Your task to perform on an android device: toggle notifications settings in the gmail app Image 0: 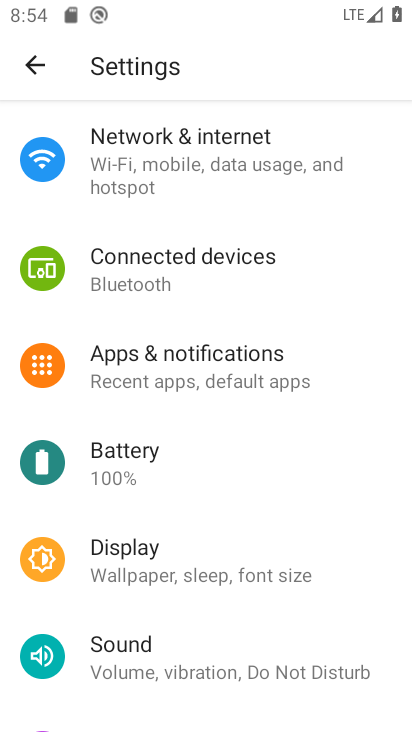
Step 0: click (354, 273)
Your task to perform on an android device: toggle notifications settings in the gmail app Image 1: 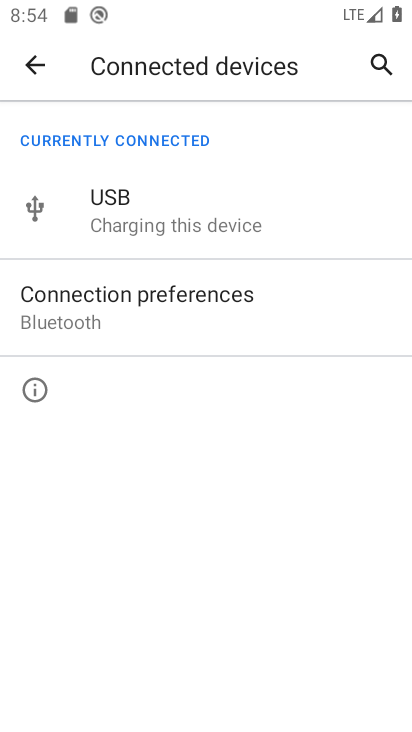
Step 1: click (35, 66)
Your task to perform on an android device: toggle notifications settings in the gmail app Image 2: 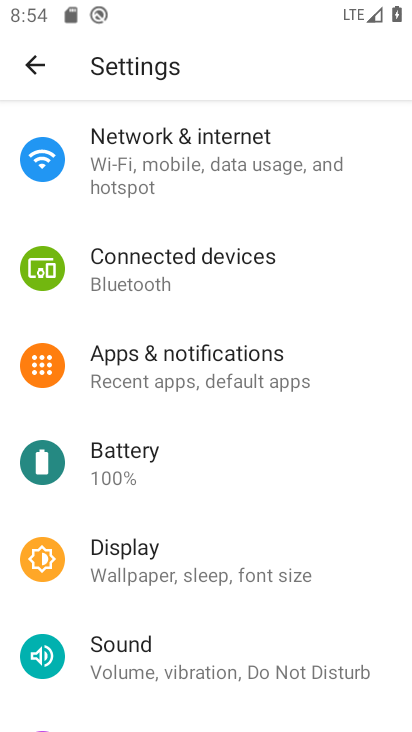
Step 2: press home button
Your task to perform on an android device: toggle notifications settings in the gmail app Image 3: 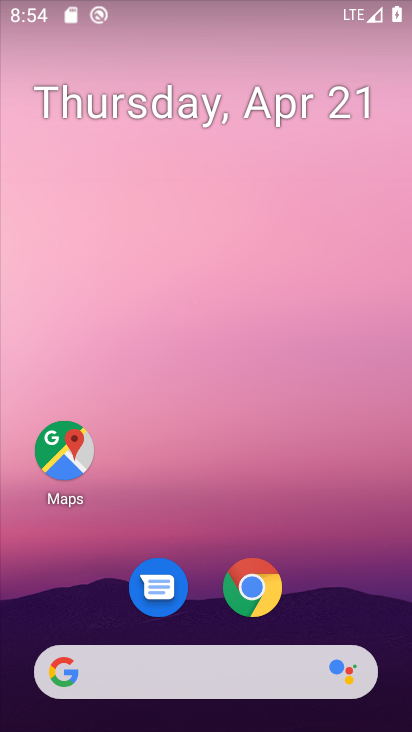
Step 3: drag from (347, 518) to (295, 63)
Your task to perform on an android device: toggle notifications settings in the gmail app Image 4: 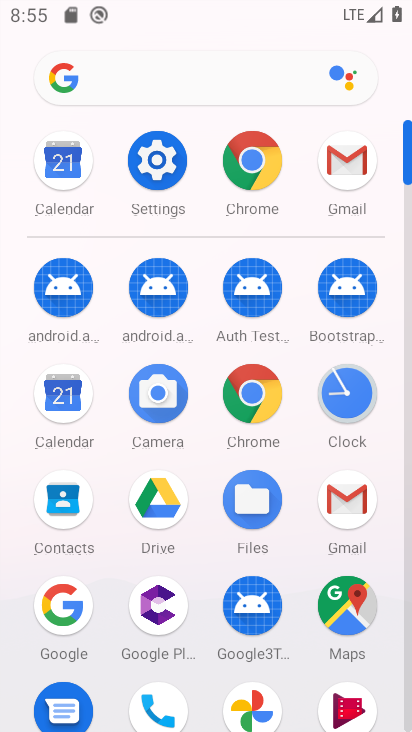
Step 4: click (338, 496)
Your task to perform on an android device: toggle notifications settings in the gmail app Image 5: 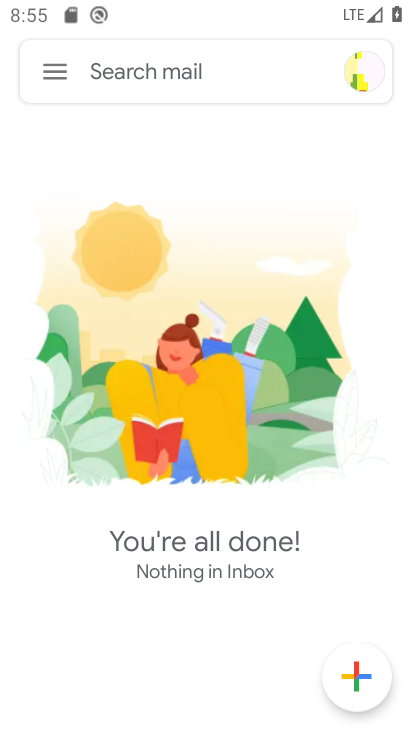
Step 5: click (55, 70)
Your task to perform on an android device: toggle notifications settings in the gmail app Image 6: 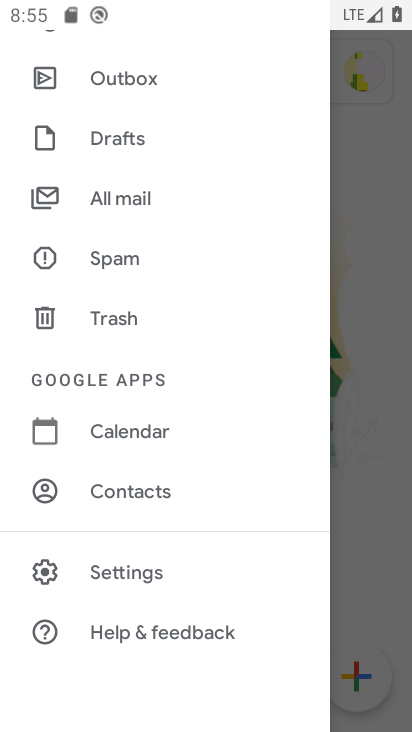
Step 6: click (110, 570)
Your task to perform on an android device: toggle notifications settings in the gmail app Image 7: 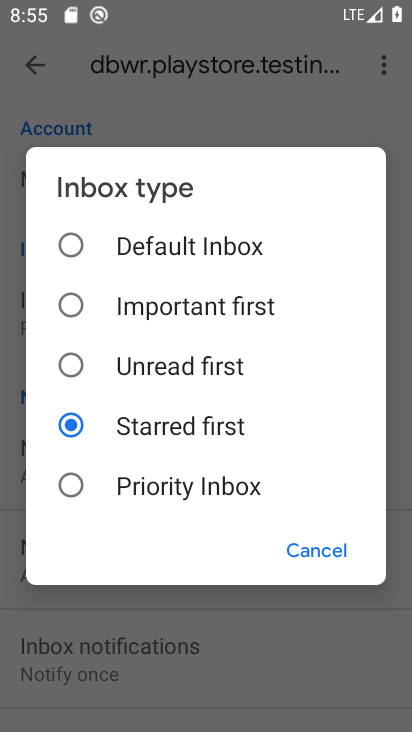
Step 7: press back button
Your task to perform on an android device: toggle notifications settings in the gmail app Image 8: 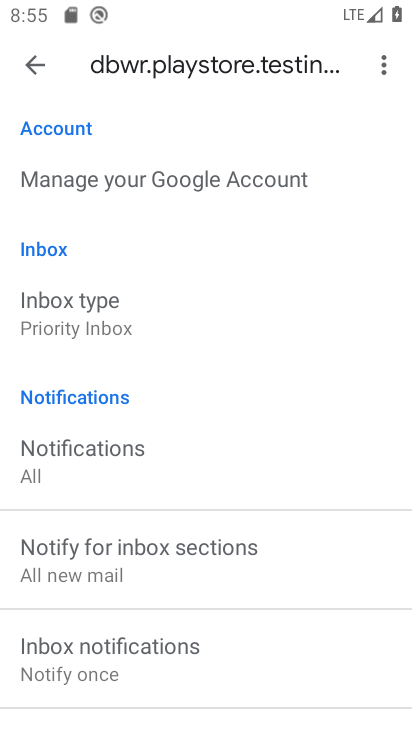
Step 8: click (26, 67)
Your task to perform on an android device: toggle notifications settings in the gmail app Image 9: 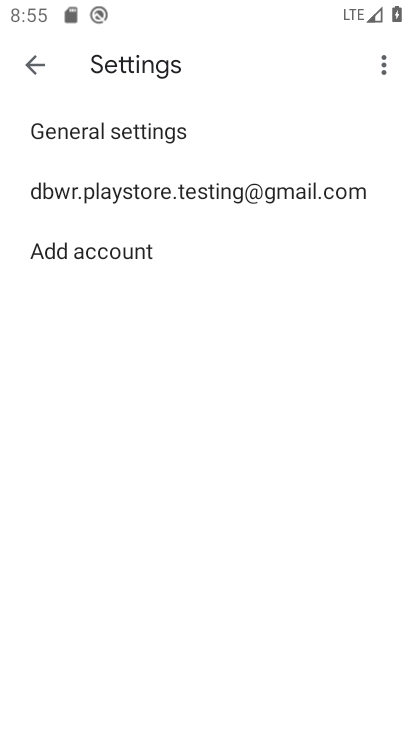
Step 9: click (88, 122)
Your task to perform on an android device: toggle notifications settings in the gmail app Image 10: 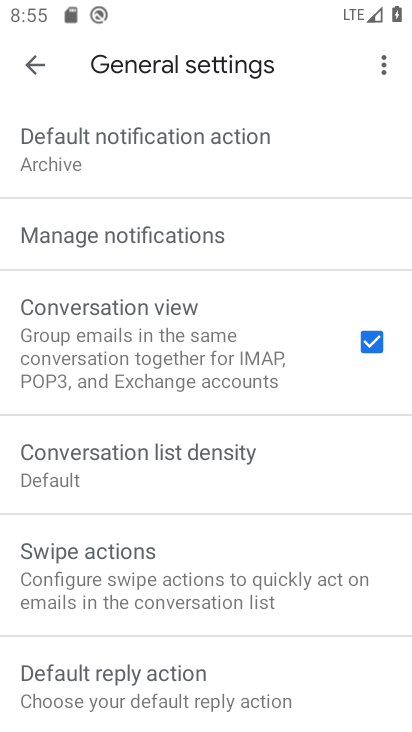
Step 10: click (104, 237)
Your task to perform on an android device: toggle notifications settings in the gmail app Image 11: 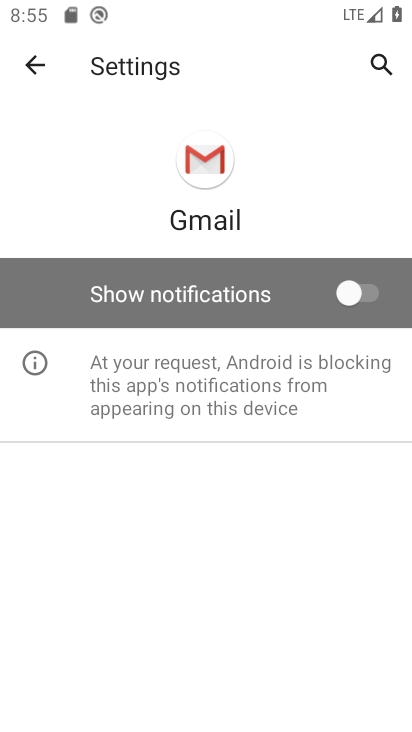
Step 11: click (370, 283)
Your task to perform on an android device: toggle notifications settings in the gmail app Image 12: 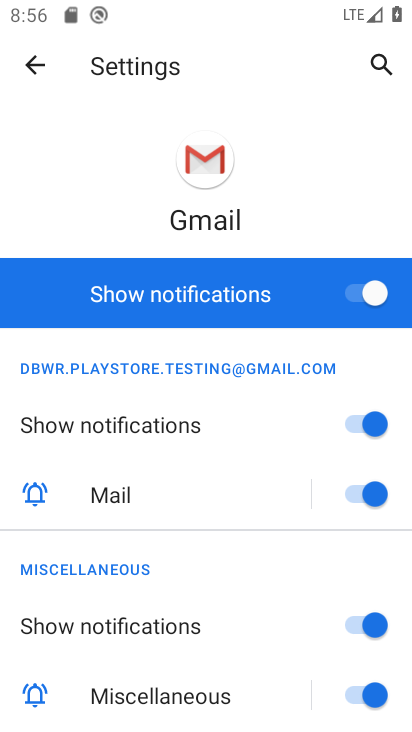
Step 12: task complete